Your task to perform on an android device: What's the weather like in Delhi? Image 0: 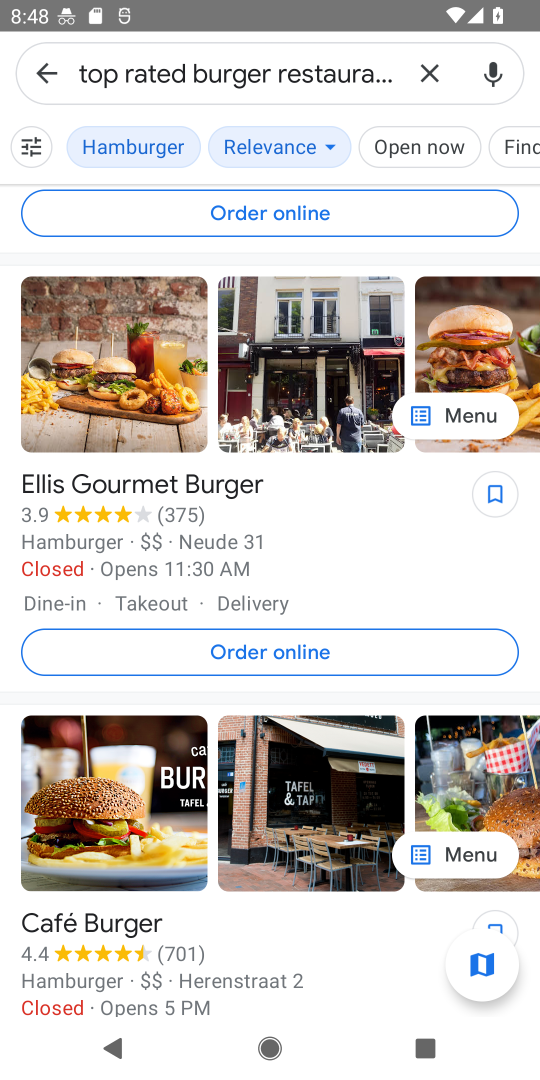
Step 0: press home button
Your task to perform on an android device: What's the weather like in Delhi? Image 1: 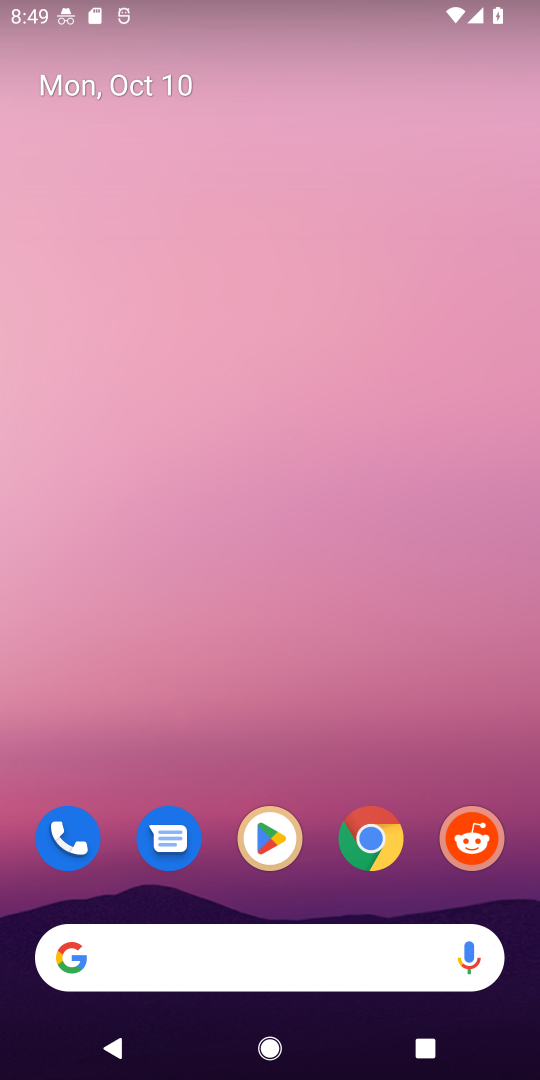
Step 1: type "weather like in Delhi?"
Your task to perform on an android device: What's the weather like in Delhi? Image 2: 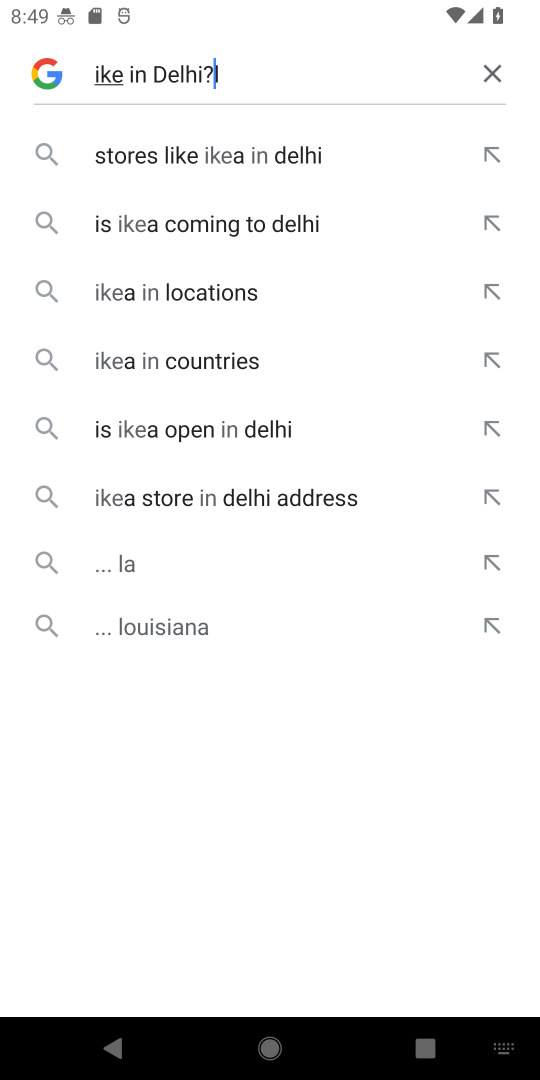
Step 2: click (484, 68)
Your task to perform on an android device: What's the weather like in Delhi? Image 3: 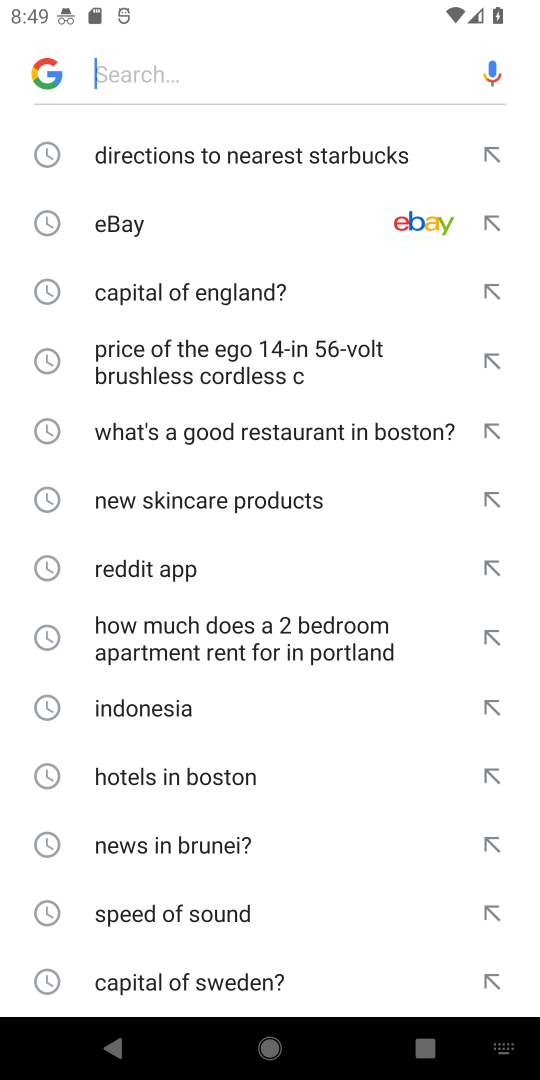
Step 3: type "weather like in Delhi?"
Your task to perform on an android device: What's the weather like in Delhi? Image 4: 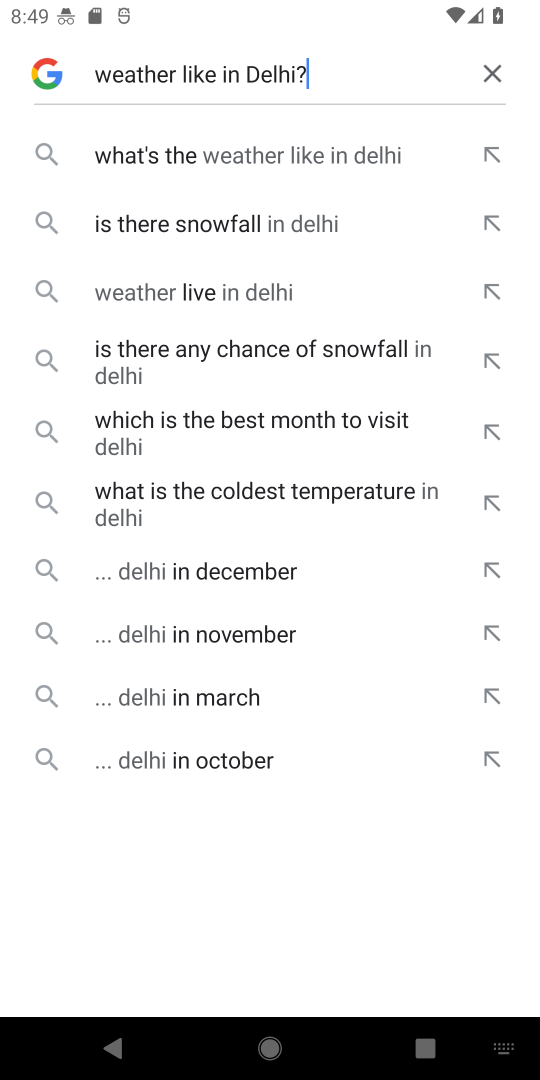
Step 4: click (221, 156)
Your task to perform on an android device: What's the weather like in Delhi? Image 5: 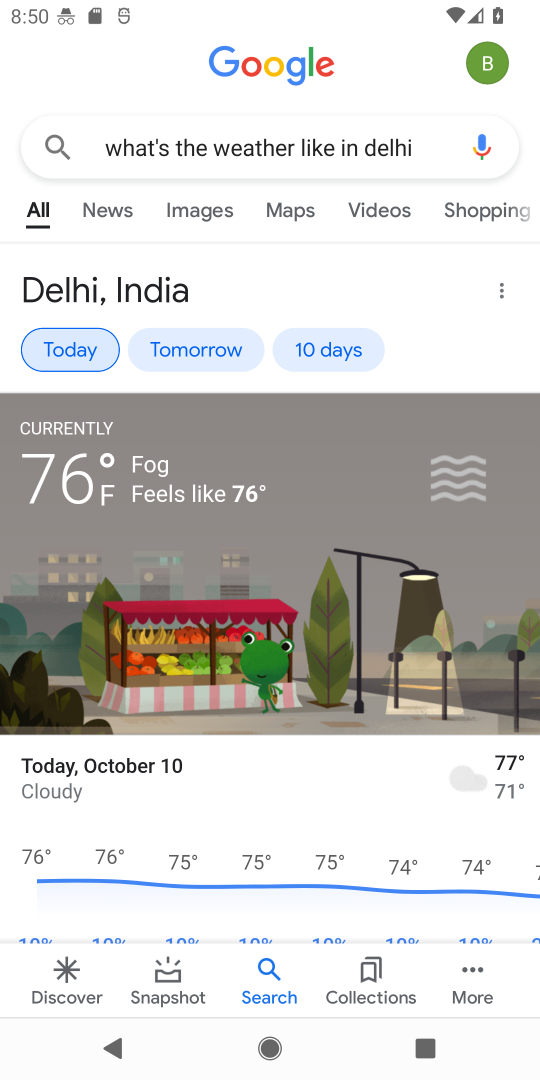
Step 5: task complete